Your task to perform on an android device: Open the phone app and click the voicemail tab. Image 0: 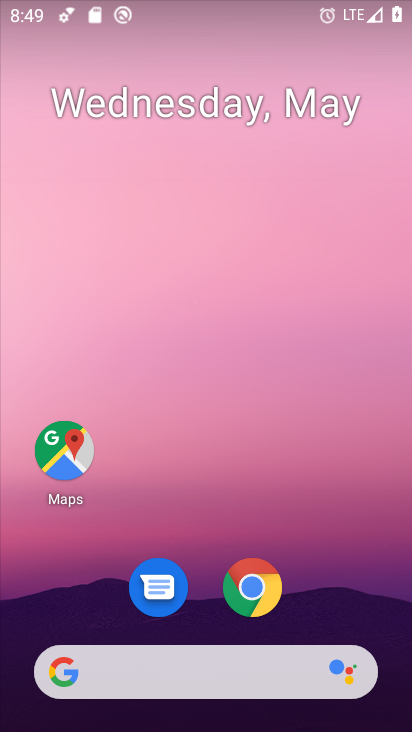
Step 0: drag from (223, 591) to (263, 132)
Your task to perform on an android device: Open the phone app and click the voicemail tab. Image 1: 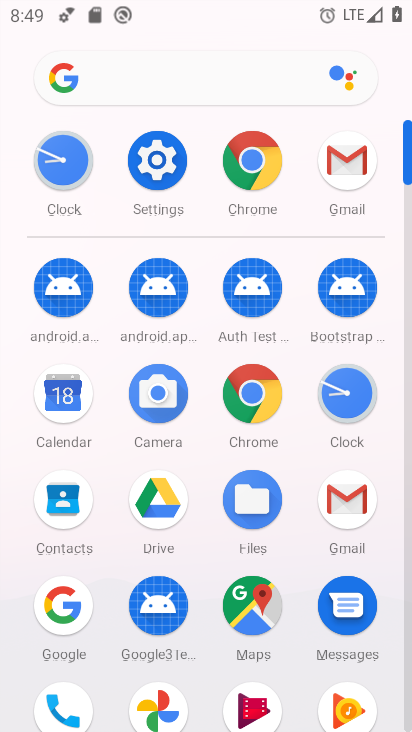
Step 1: drag from (191, 561) to (194, 366)
Your task to perform on an android device: Open the phone app and click the voicemail tab. Image 2: 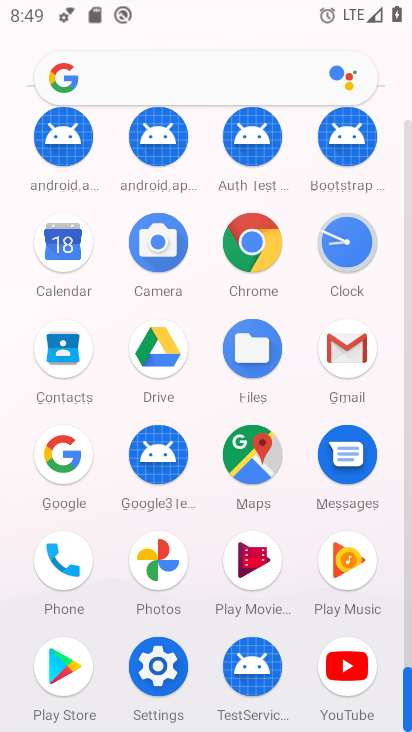
Step 2: click (73, 552)
Your task to perform on an android device: Open the phone app and click the voicemail tab. Image 3: 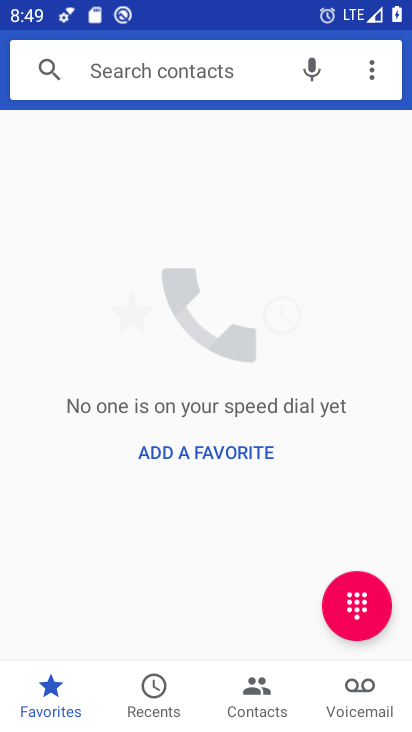
Step 3: click (351, 692)
Your task to perform on an android device: Open the phone app and click the voicemail tab. Image 4: 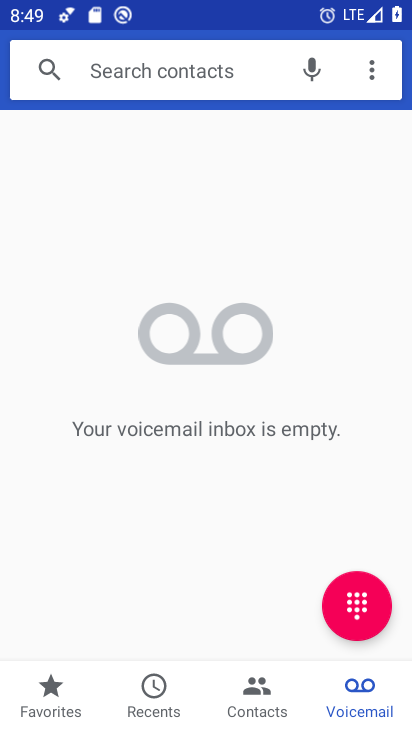
Step 4: task complete